Your task to perform on an android device: Go to Yahoo.com Image 0: 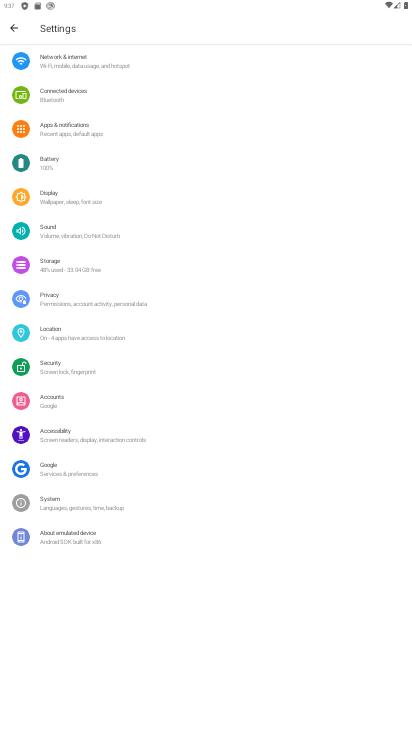
Step 0: press home button
Your task to perform on an android device: Go to Yahoo.com Image 1: 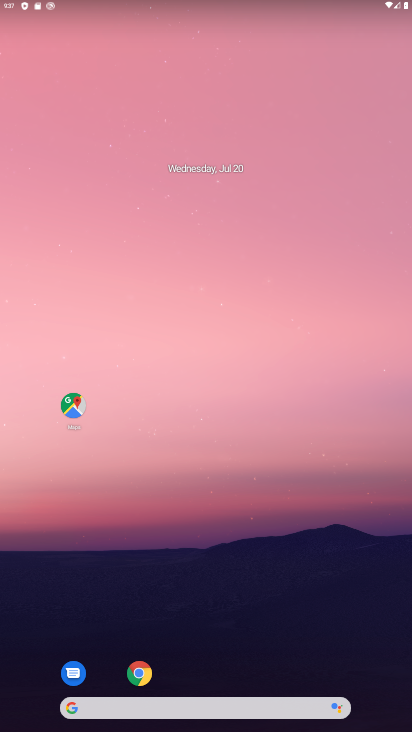
Step 1: click (137, 670)
Your task to perform on an android device: Go to Yahoo.com Image 2: 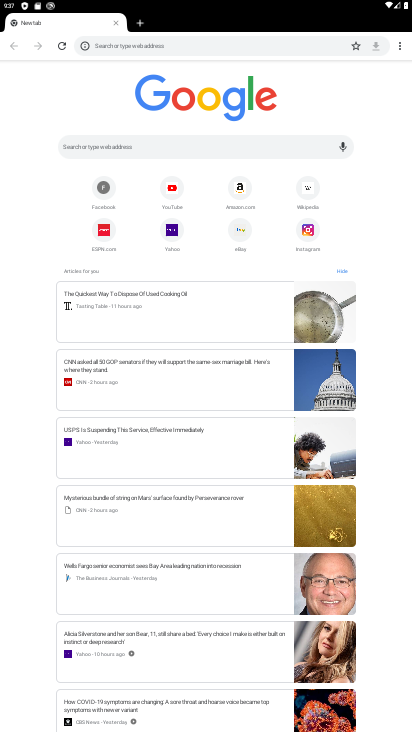
Step 2: click (173, 238)
Your task to perform on an android device: Go to Yahoo.com Image 3: 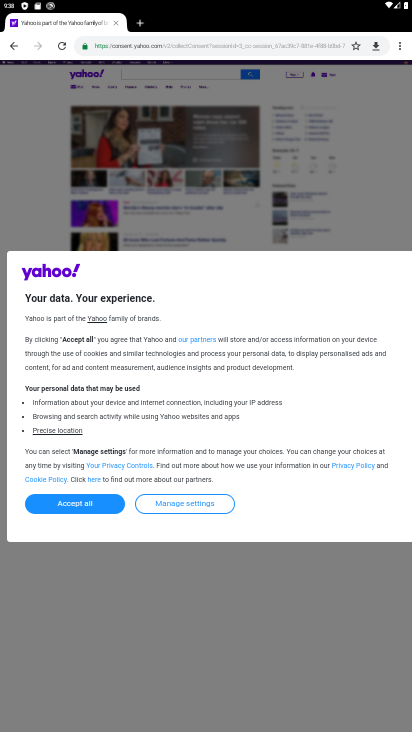
Step 3: task complete